Your task to perform on an android device: toggle sleep mode Image 0: 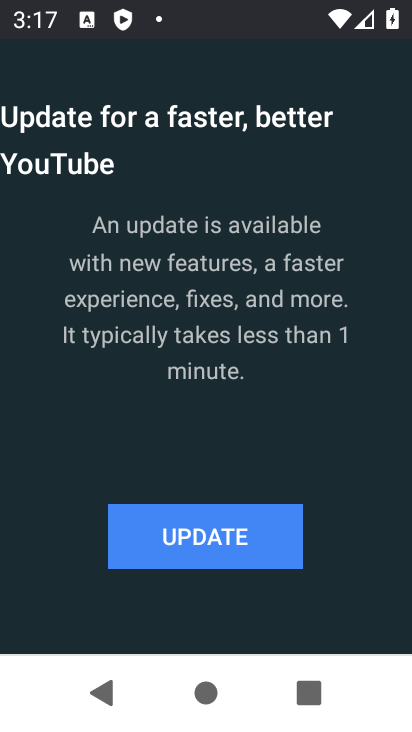
Step 0: press home button
Your task to perform on an android device: toggle sleep mode Image 1: 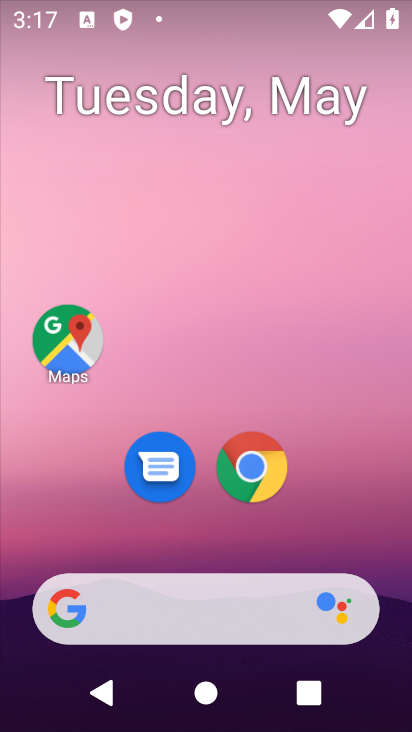
Step 1: task complete